Your task to perform on an android device: Turn off the flashlight Image 0: 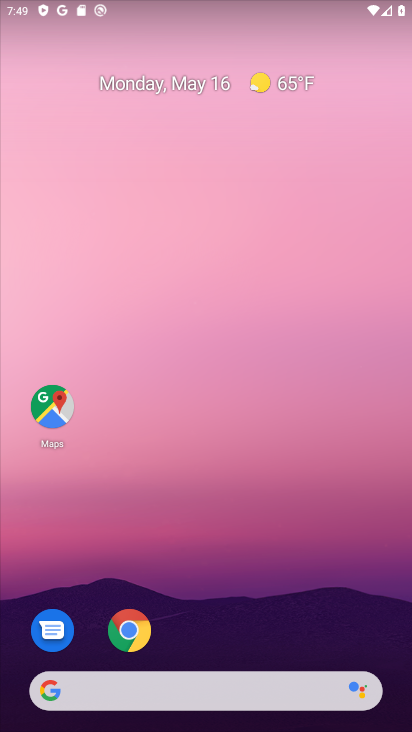
Step 0: drag from (229, 640) to (268, 251)
Your task to perform on an android device: Turn off the flashlight Image 1: 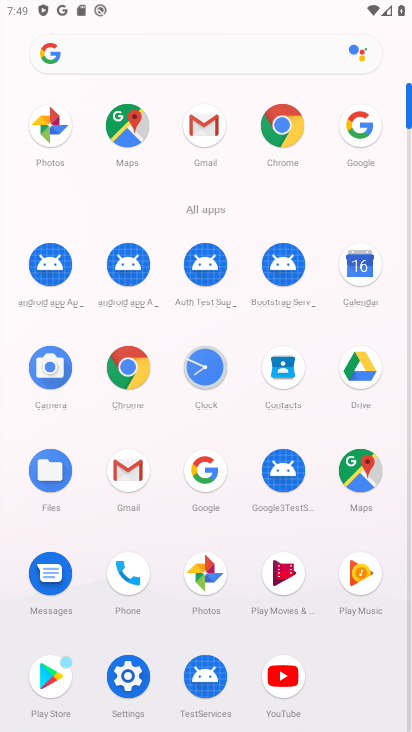
Step 1: click (126, 688)
Your task to perform on an android device: Turn off the flashlight Image 2: 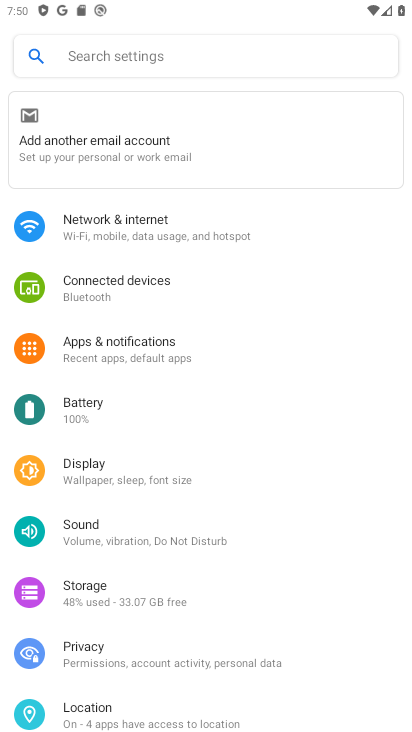
Step 2: task complete